Your task to perform on an android device: turn off translation in the chrome app Image 0: 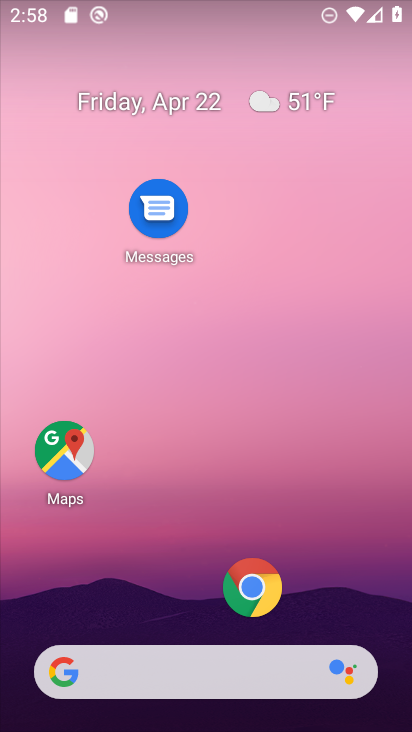
Step 0: click (267, 586)
Your task to perform on an android device: turn off translation in the chrome app Image 1: 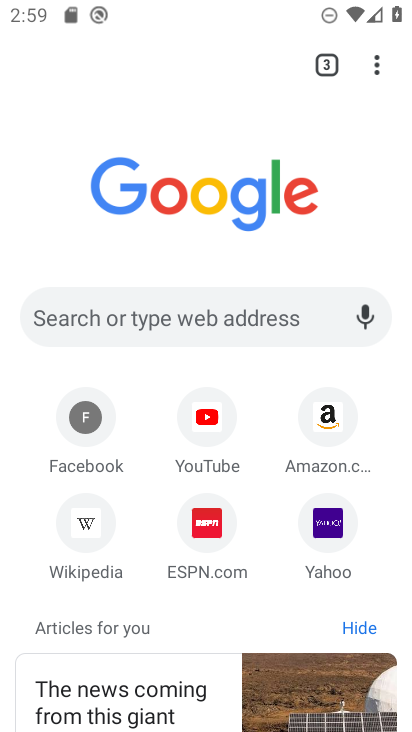
Step 1: click (371, 63)
Your task to perform on an android device: turn off translation in the chrome app Image 2: 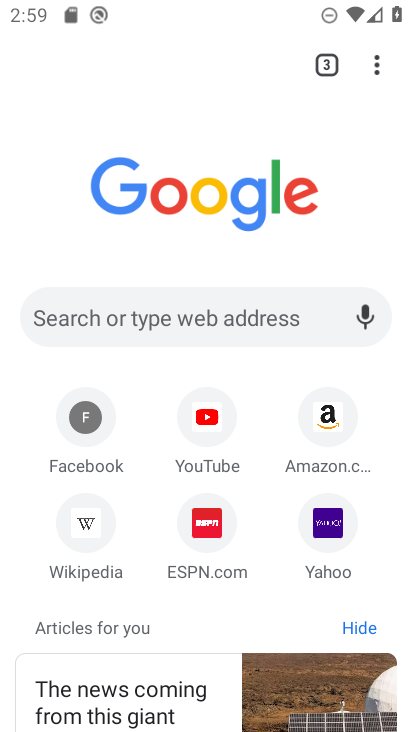
Step 2: click (375, 70)
Your task to perform on an android device: turn off translation in the chrome app Image 3: 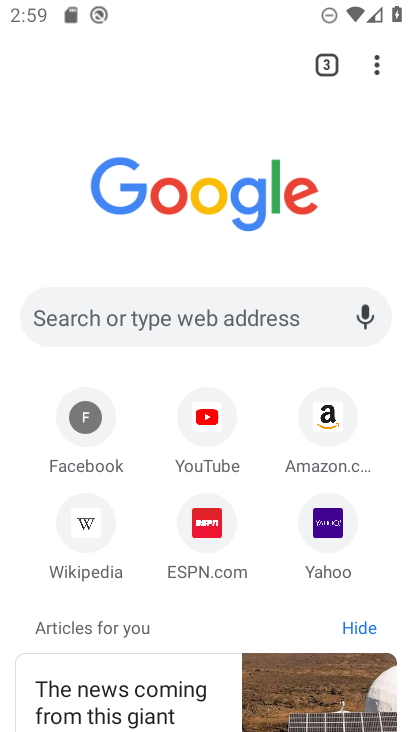
Step 3: drag from (378, 73) to (155, 613)
Your task to perform on an android device: turn off translation in the chrome app Image 4: 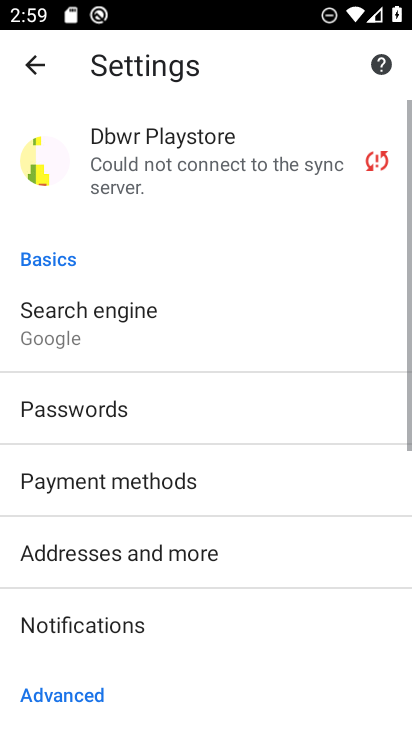
Step 4: drag from (156, 614) to (223, 251)
Your task to perform on an android device: turn off translation in the chrome app Image 5: 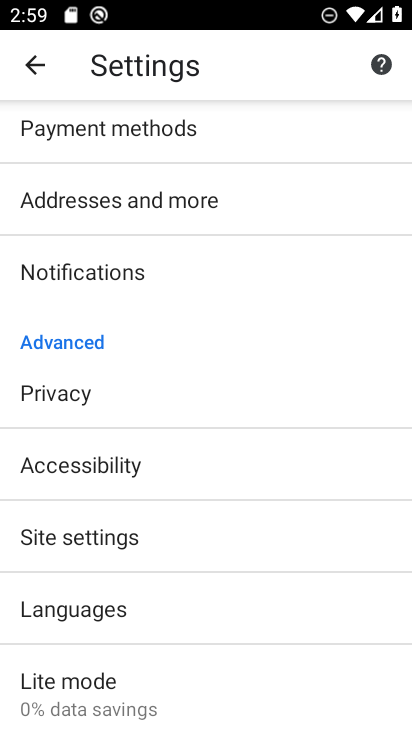
Step 5: click (81, 593)
Your task to perform on an android device: turn off translation in the chrome app Image 6: 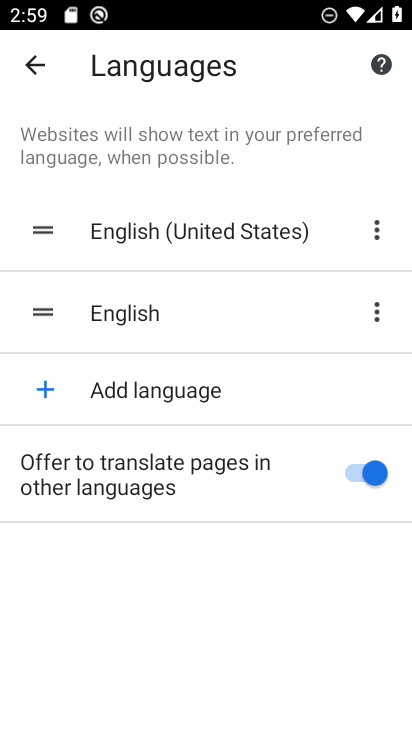
Step 6: click (350, 471)
Your task to perform on an android device: turn off translation in the chrome app Image 7: 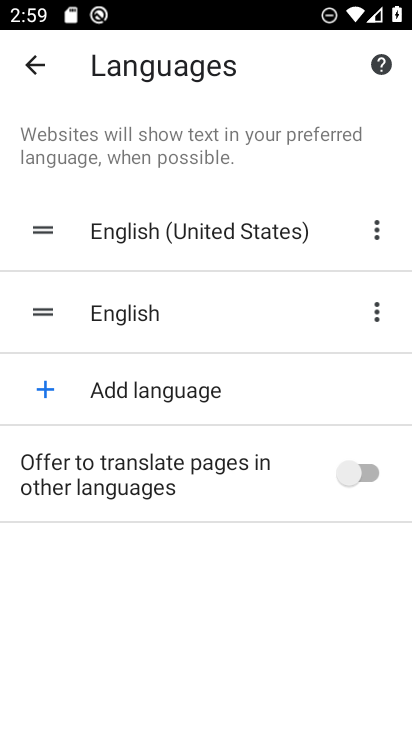
Step 7: task complete